Your task to perform on an android device: toggle priority inbox in the gmail app Image 0: 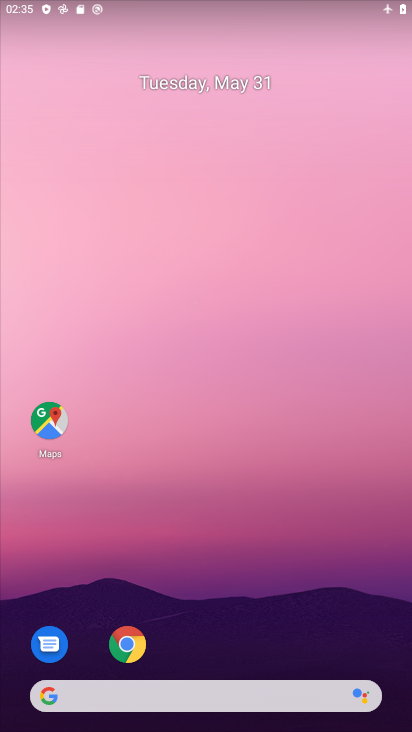
Step 0: drag from (263, 582) to (242, 143)
Your task to perform on an android device: toggle priority inbox in the gmail app Image 1: 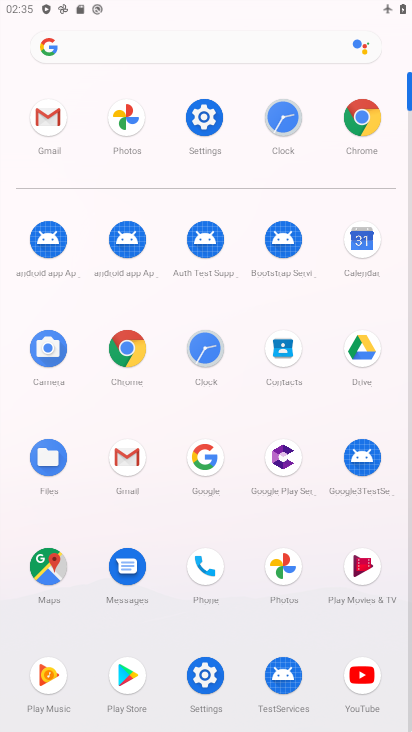
Step 1: click (41, 119)
Your task to perform on an android device: toggle priority inbox in the gmail app Image 2: 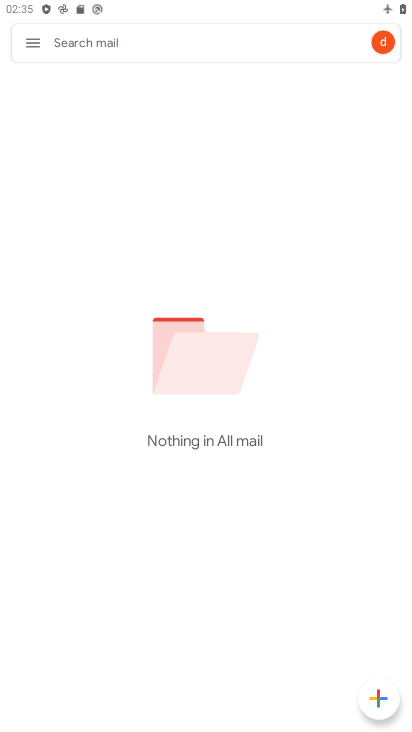
Step 2: click (34, 47)
Your task to perform on an android device: toggle priority inbox in the gmail app Image 3: 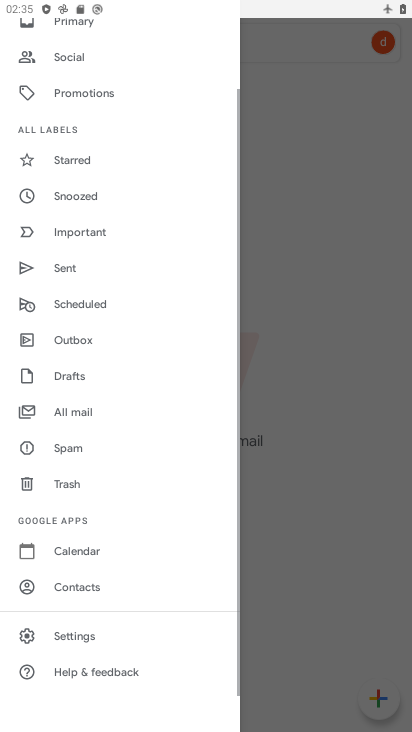
Step 3: drag from (165, 325) to (169, 211)
Your task to perform on an android device: toggle priority inbox in the gmail app Image 4: 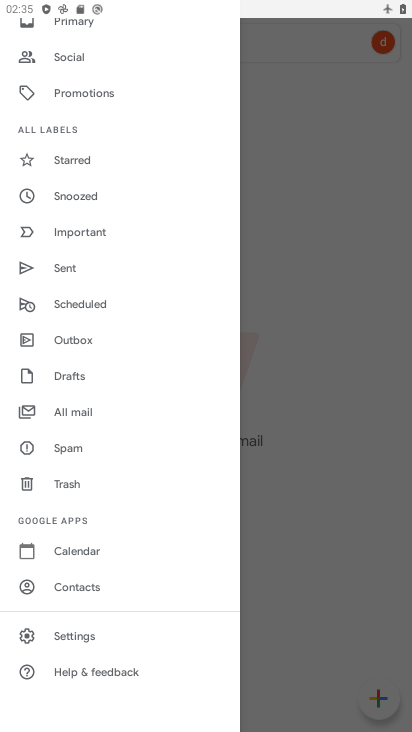
Step 4: click (72, 642)
Your task to perform on an android device: toggle priority inbox in the gmail app Image 5: 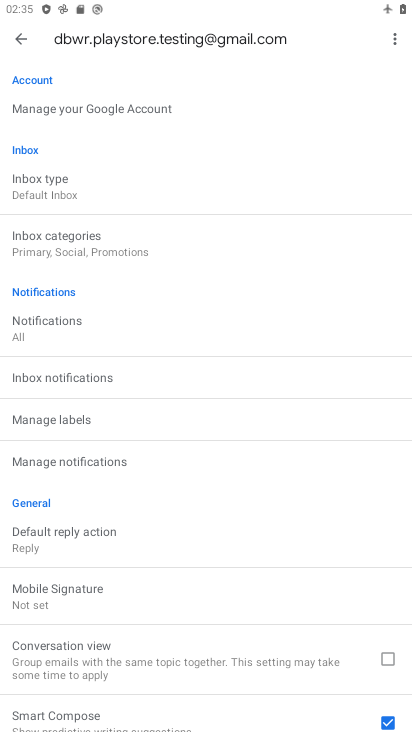
Step 5: click (86, 185)
Your task to perform on an android device: toggle priority inbox in the gmail app Image 6: 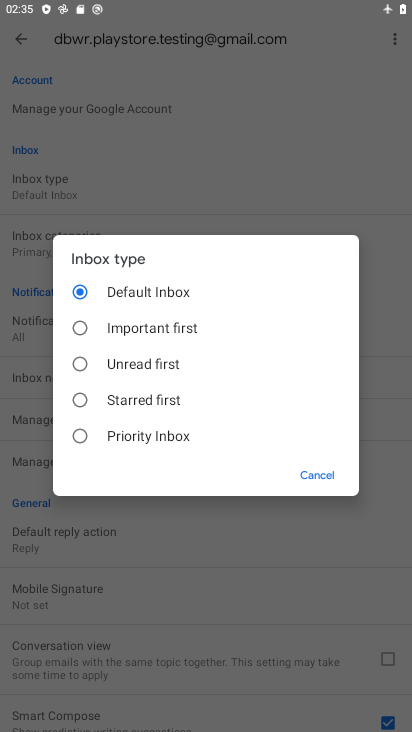
Step 6: click (141, 446)
Your task to perform on an android device: toggle priority inbox in the gmail app Image 7: 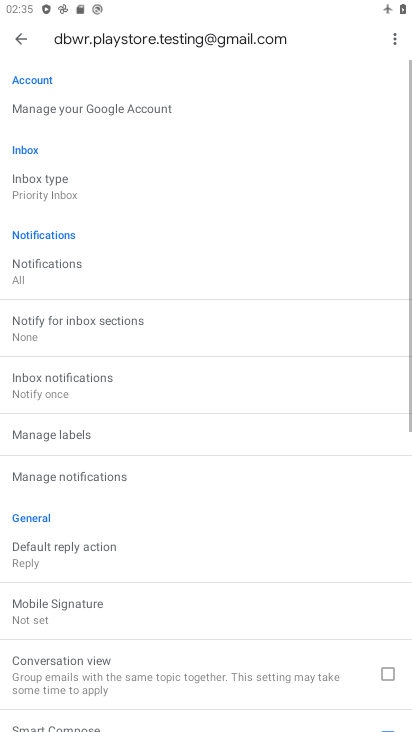
Step 7: task complete